Your task to perform on an android device: turn off picture-in-picture Image 0: 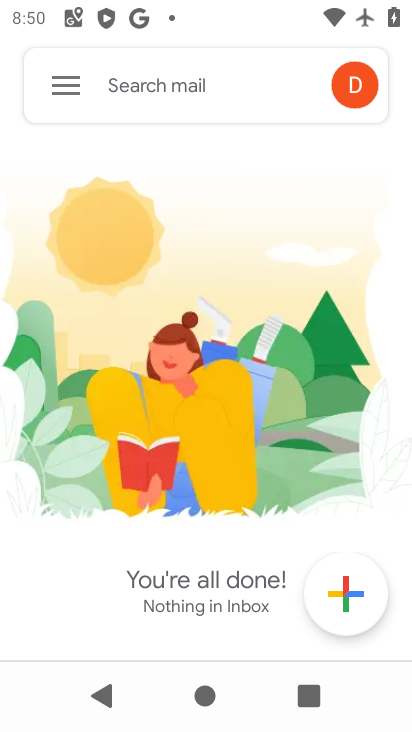
Step 0: press home button
Your task to perform on an android device: turn off picture-in-picture Image 1: 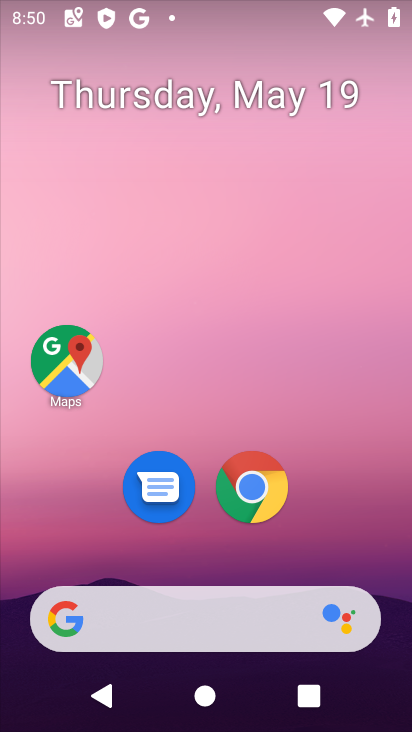
Step 1: drag from (211, 571) to (337, 29)
Your task to perform on an android device: turn off picture-in-picture Image 2: 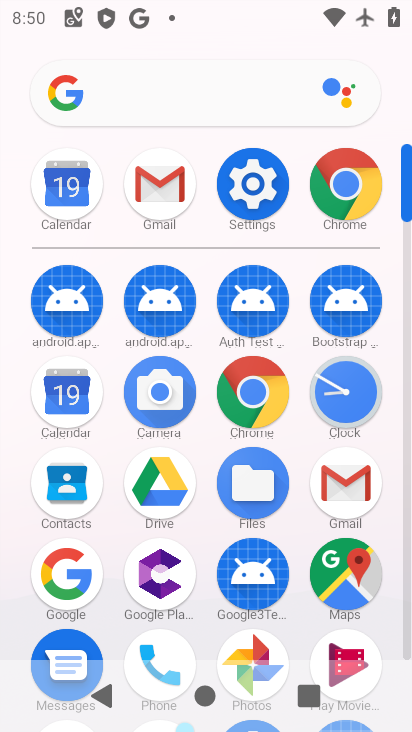
Step 2: click (239, 192)
Your task to perform on an android device: turn off picture-in-picture Image 3: 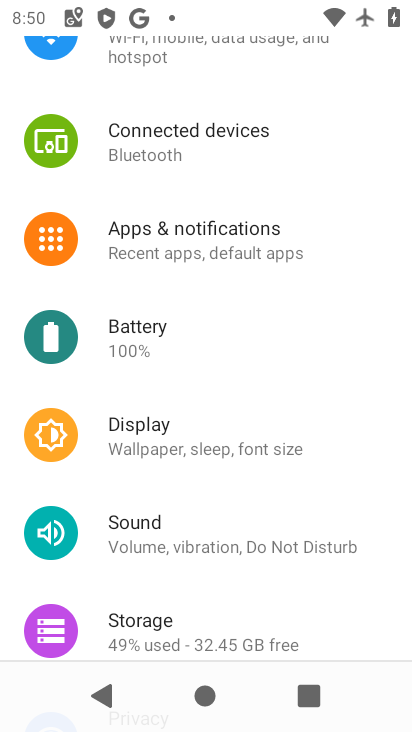
Step 3: click (203, 256)
Your task to perform on an android device: turn off picture-in-picture Image 4: 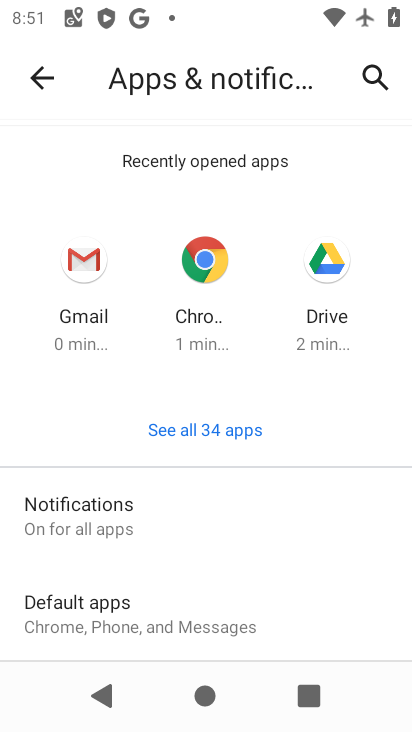
Step 4: drag from (212, 623) to (180, 206)
Your task to perform on an android device: turn off picture-in-picture Image 5: 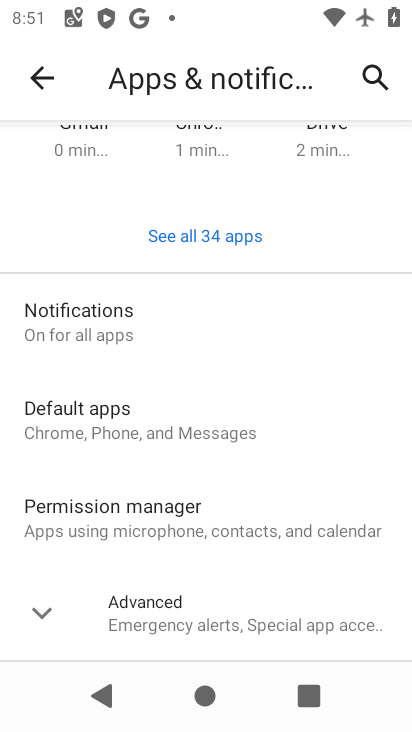
Step 5: click (142, 587)
Your task to perform on an android device: turn off picture-in-picture Image 6: 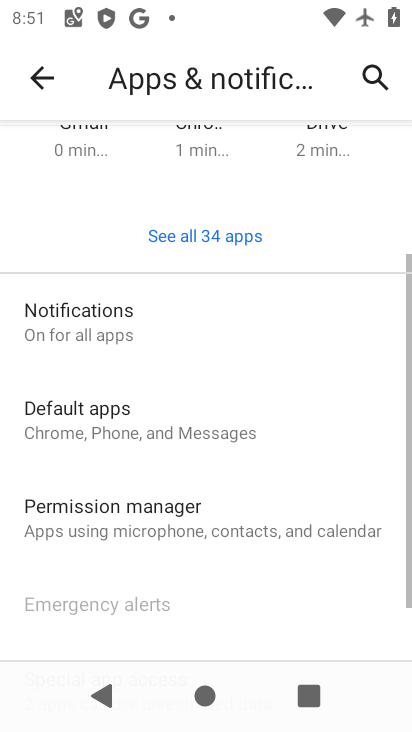
Step 6: drag from (144, 588) to (118, 166)
Your task to perform on an android device: turn off picture-in-picture Image 7: 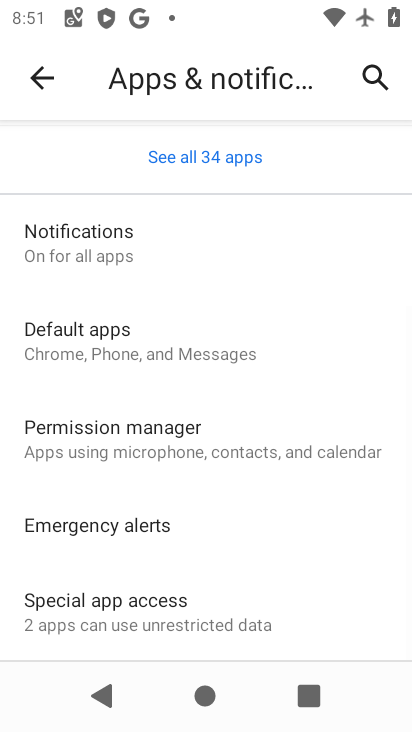
Step 7: click (111, 582)
Your task to perform on an android device: turn off picture-in-picture Image 8: 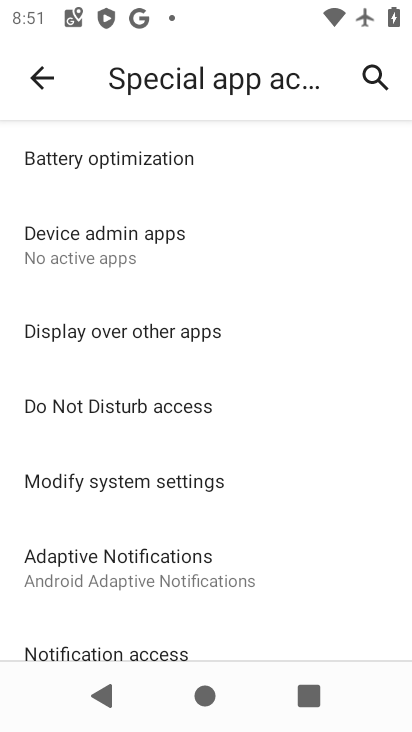
Step 8: drag from (144, 523) to (128, 169)
Your task to perform on an android device: turn off picture-in-picture Image 9: 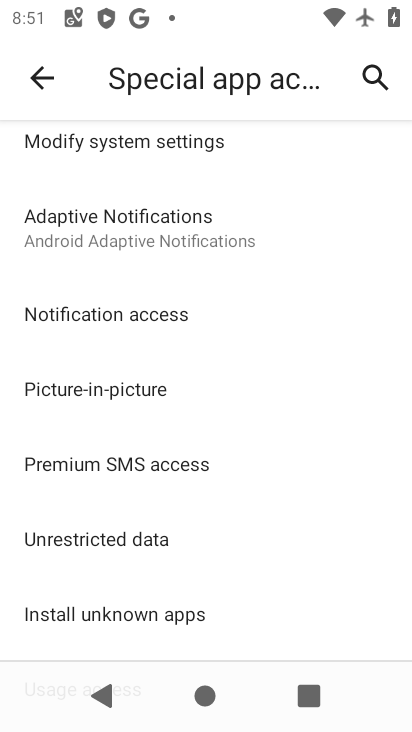
Step 9: click (72, 404)
Your task to perform on an android device: turn off picture-in-picture Image 10: 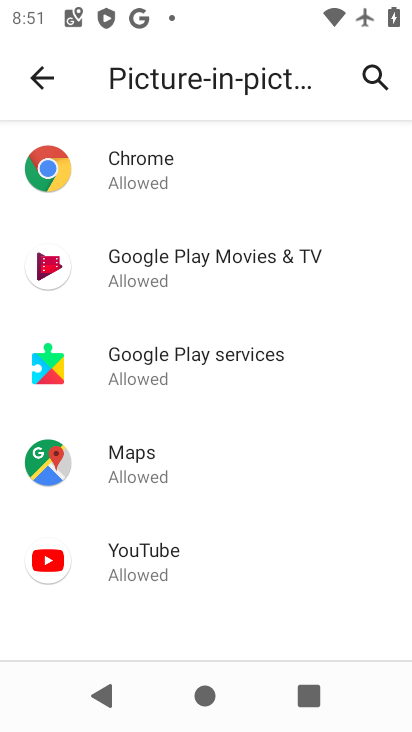
Step 10: task complete